Your task to perform on an android device: Open notification settings Image 0: 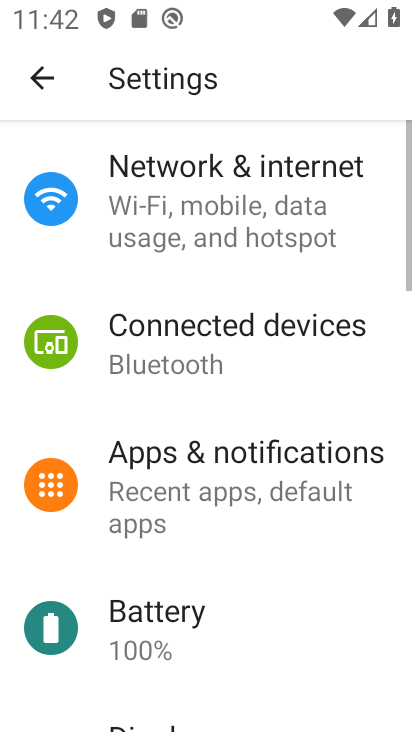
Step 0: press home button
Your task to perform on an android device: Open notification settings Image 1: 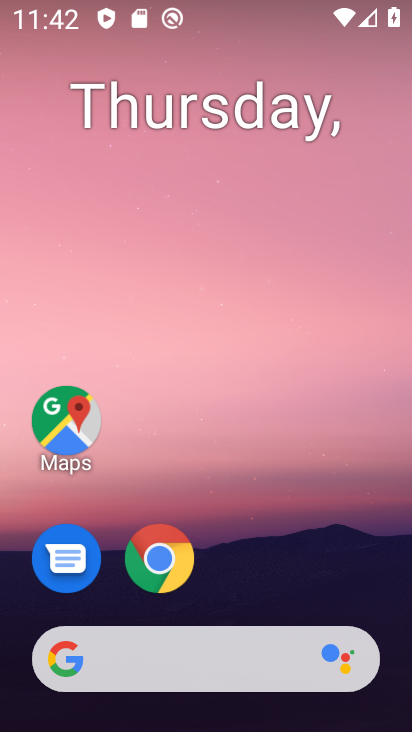
Step 1: drag from (379, 597) to (385, 100)
Your task to perform on an android device: Open notification settings Image 2: 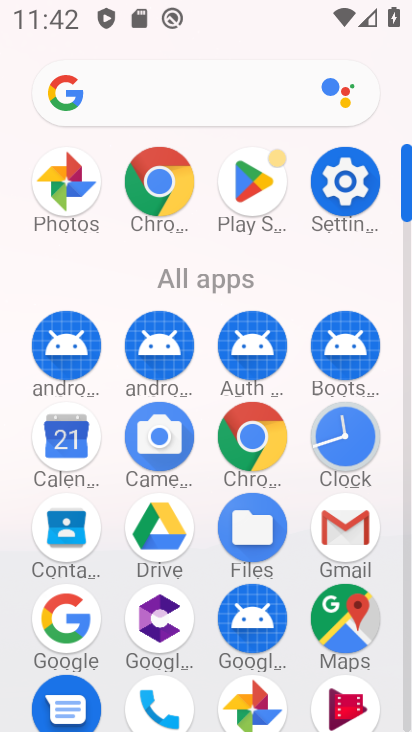
Step 2: click (342, 182)
Your task to perform on an android device: Open notification settings Image 3: 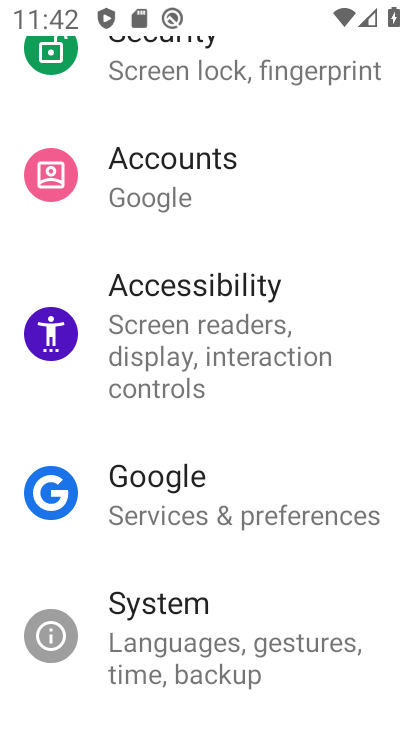
Step 3: drag from (336, 181) to (336, 233)
Your task to perform on an android device: Open notification settings Image 4: 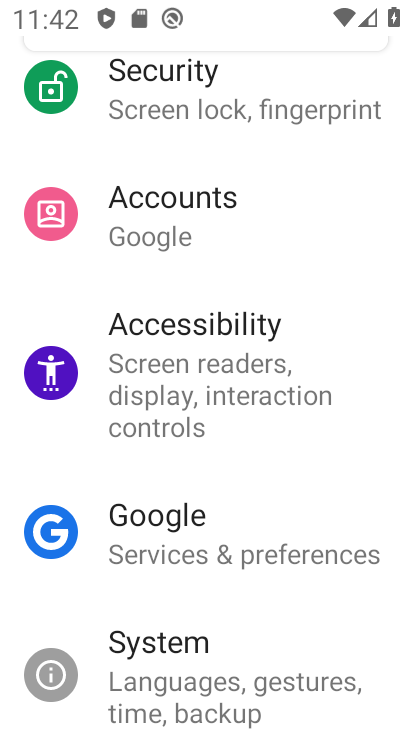
Step 4: drag from (349, 176) to (354, 265)
Your task to perform on an android device: Open notification settings Image 5: 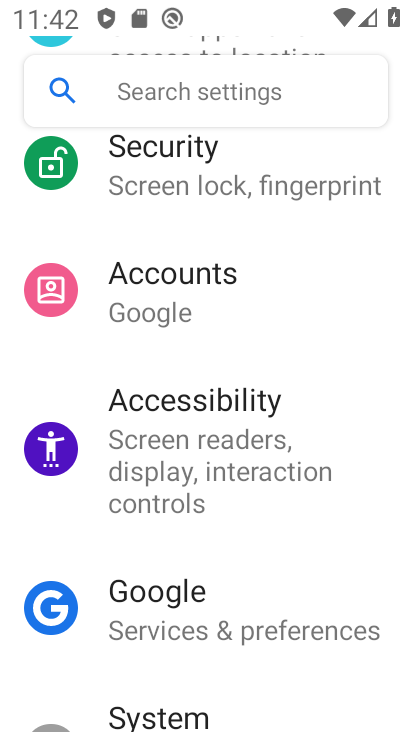
Step 5: drag from (355, 240) to (348, 321)
Your task to perform on an android device: Open notification settings Image 6: 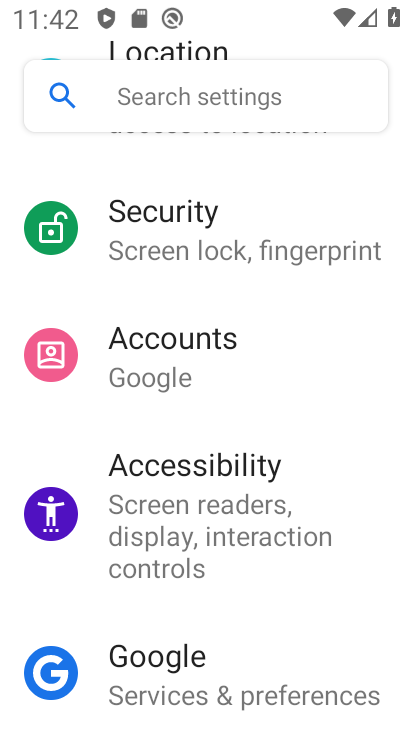
Step 6: drag from (364, 278) to (350, 372)
Your task to perform on an android device: Open notification settings Image 7: 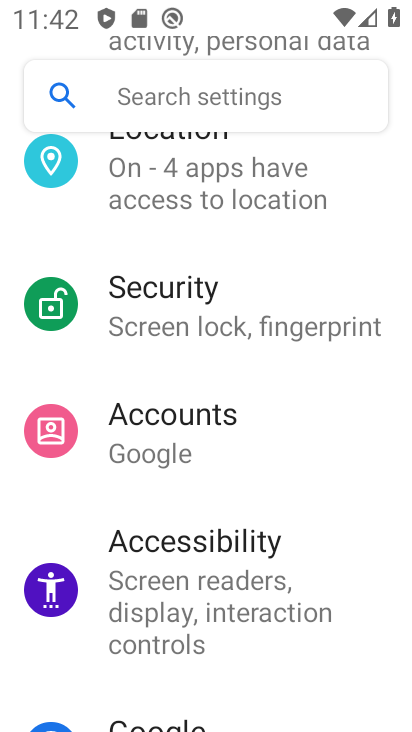
Step 7: drag from (349, 294) to (351, 383)
Your task to perform on an android device: Open notification settings Image 8: 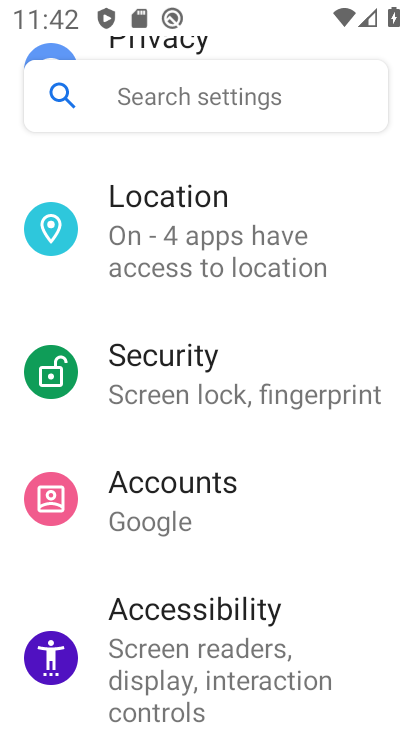
Step 8: drag from (352, 315) to (351, 388)
Your task to perform on an android device: Open notification settings Image 9: 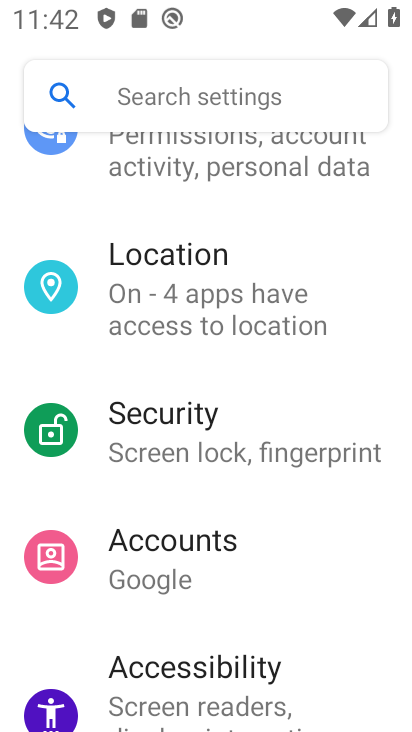
Step 9: drag from (355, 302) to (363, 382)
Your task to perform on an android device: Open notification settings Image 10: 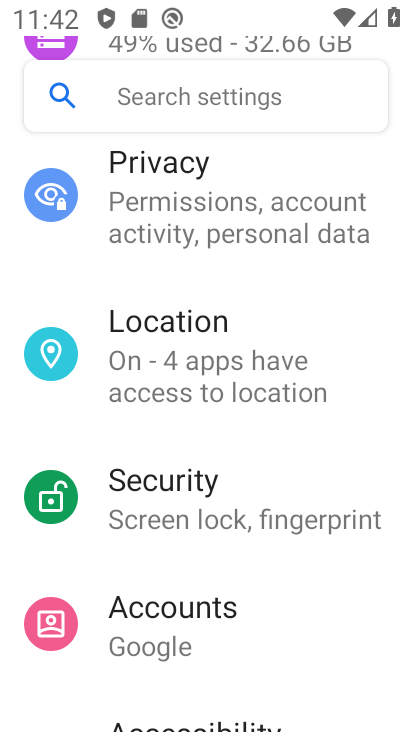
Step 10: drag from (370, 312) to (365, 408)
Your task to perform on an android device: Open notification settings Image 11: 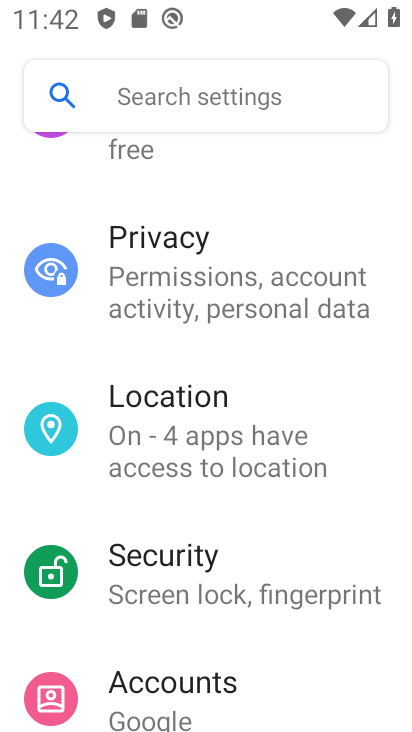
Step 11: drag from (368, 352) to (365, 436)
Your task to perform on an android device: Open notification settings Image 12: 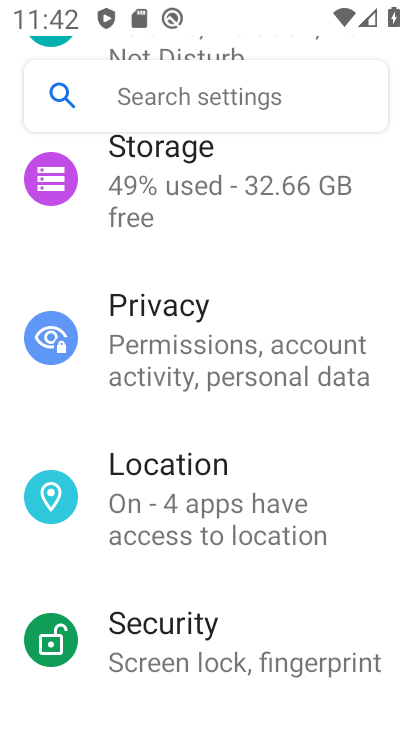
Step 12: drag from (383, 308) to (380, 401)
Your task to perform on an android device: Open notification settings Image 13: 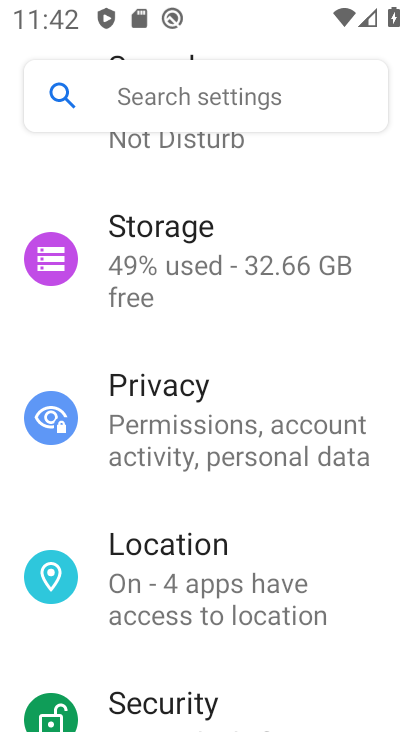
Step 13: drag from (373, 319) to (378, 429)
Your task to perform on an android device: Open notification settings Image 14: 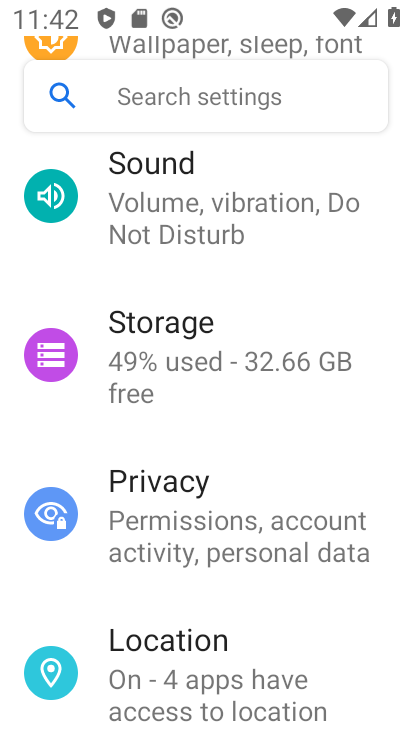
Step 14: drag from (367, 318) to (364, 431)
Your task to perform on an android device: Open notification settings Image 15: 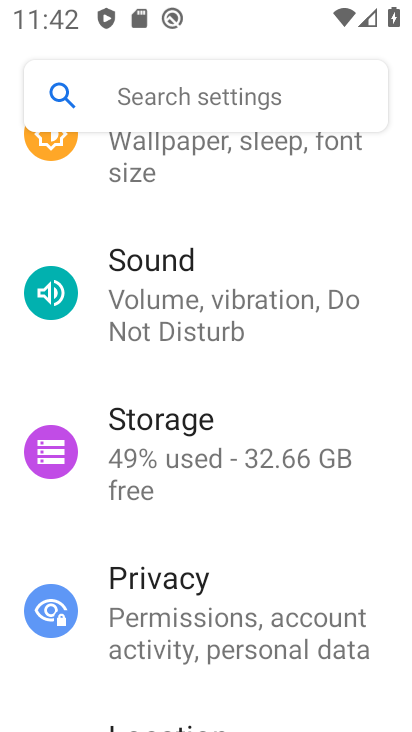
Step 15: drag from (362, 318) to (368, 412)
Your task to perform on an android device: Open notification settings Image 16: 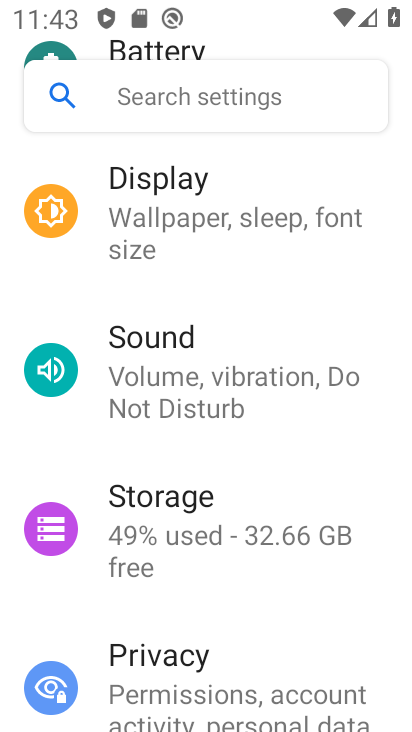
Step 16: drag from (373, 306) to (368, 424)
Your task to perform on an android device: Open notification settings Image 17: 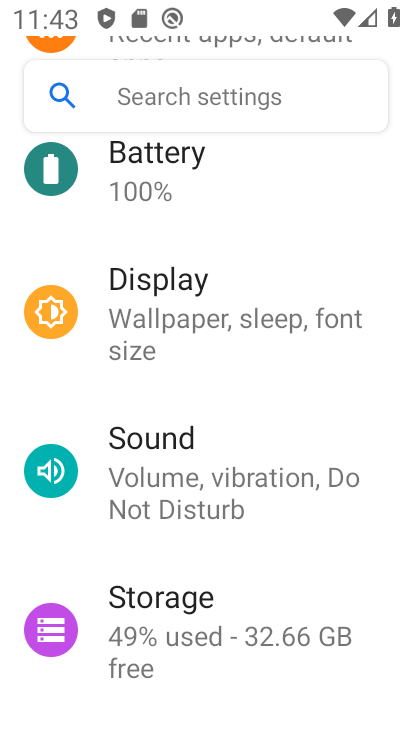
Step 17: drag from (377, 283) to (377, 399)
Your task to perform on an android device: Open notification settings Image 18: 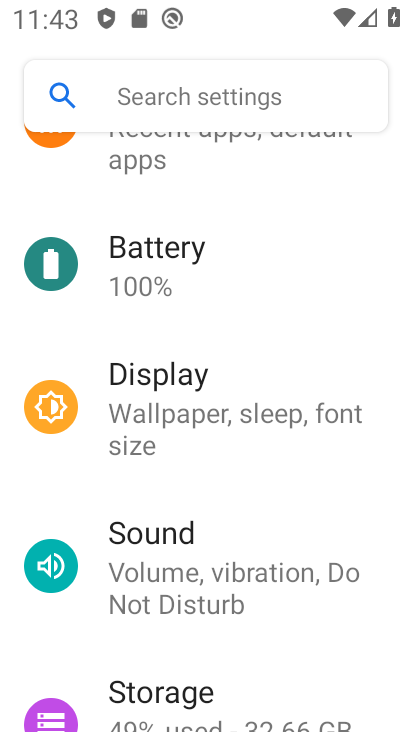
Step 18: drag from (365, 264) to (368, 390)
Your task to perform on an android device: Open notification settings Image 19: 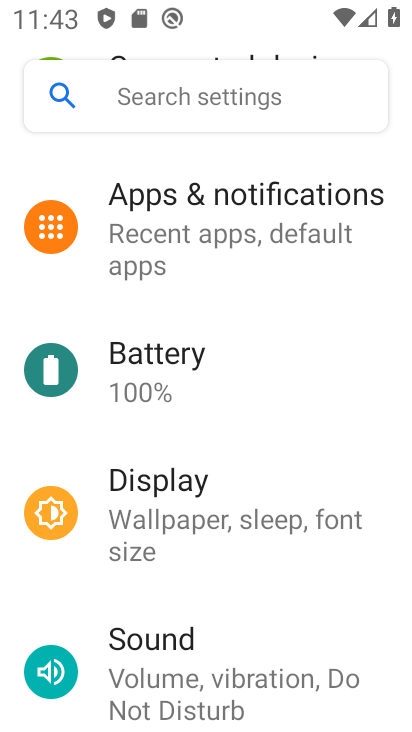
Step 19: drag from (375, 239) to (379, 406)
Your task to perform on an android device: Open notification settings Image 20: 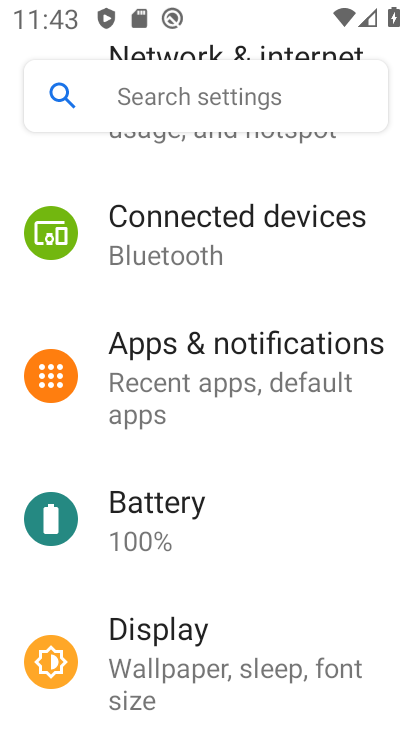
Step 20: click (336, 368)
Your task to perform on an android device: Open notification settings Image 21: 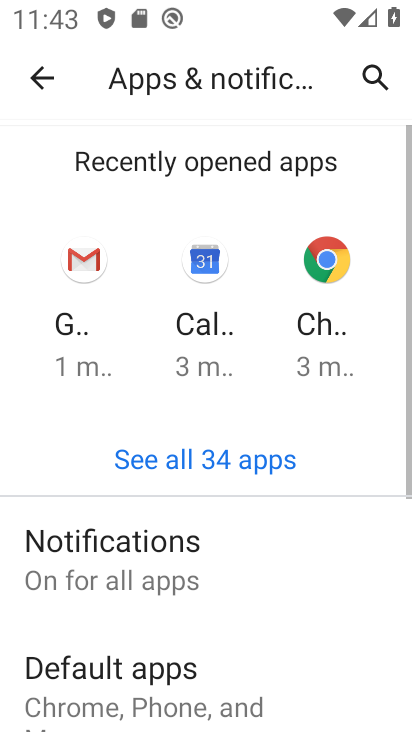
Step 21: drag from (313, 539) to (328, 433)
Your task to perform on an android device: Open notification settings Image 22: 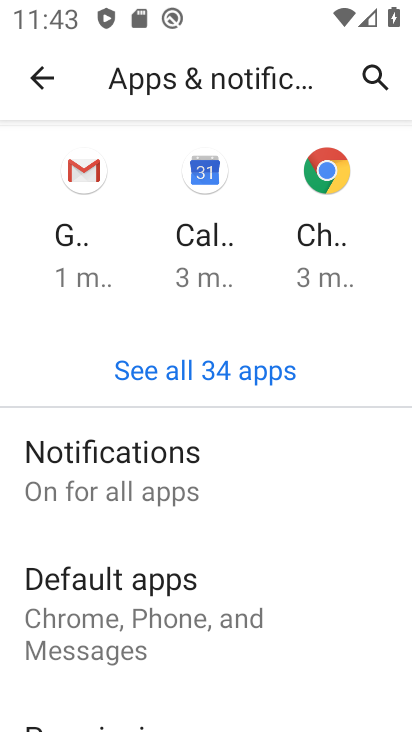
Step 22: drag from (313, 543) to (320, 421)
Your task to perform on an android device: Open notification settings Image 23: 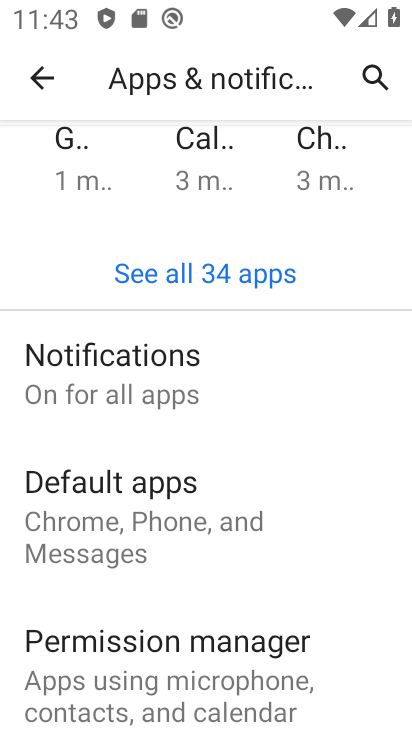
Step 23: drag from (302, 566) to (324, 443)
Your task to perform on an android device: Open notification settings Image 24: 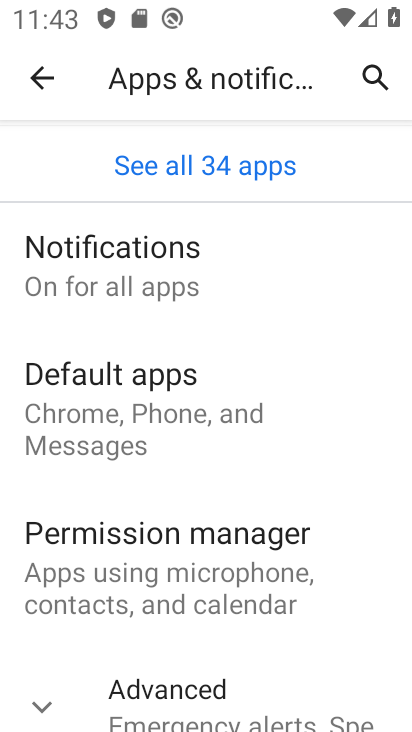
Step 24: drag from (331, 601) to (356, 469)
Your task to perform on an android device: Open notification settings Image 25: 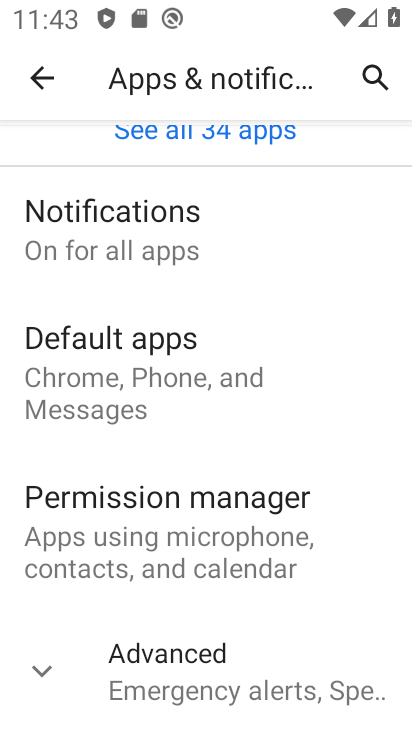
Step 25: click (320, 235)
Your task to perform on an android device: Open notification settings Image 26: 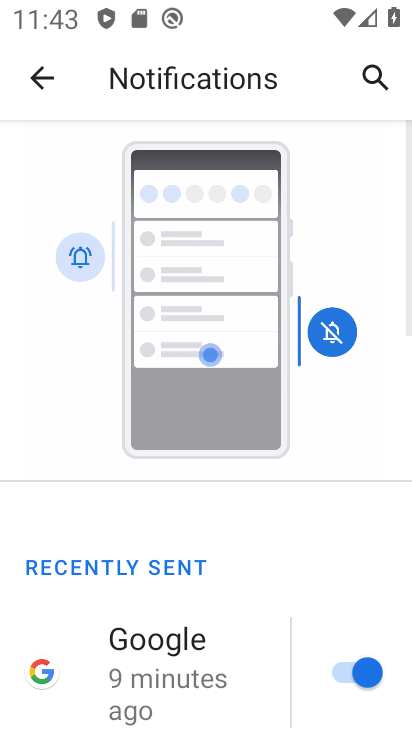
Step 26: task complete